Your task to perform on an android device: turn off location history Image 0: 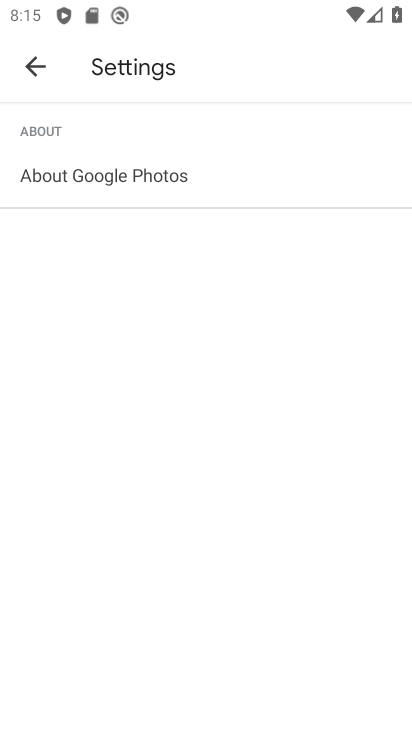
Step 0: press home button
Your task to perform on an android device: turn off location history Image 1: 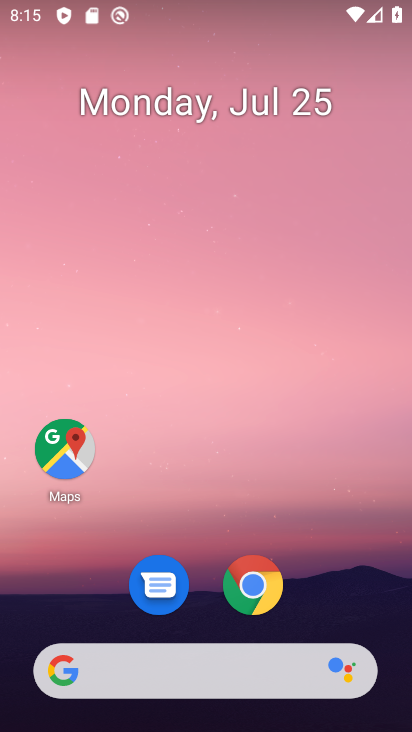
Step 1: click (70, 447)
Your task to perform on an android device: turn off location history Image 2: 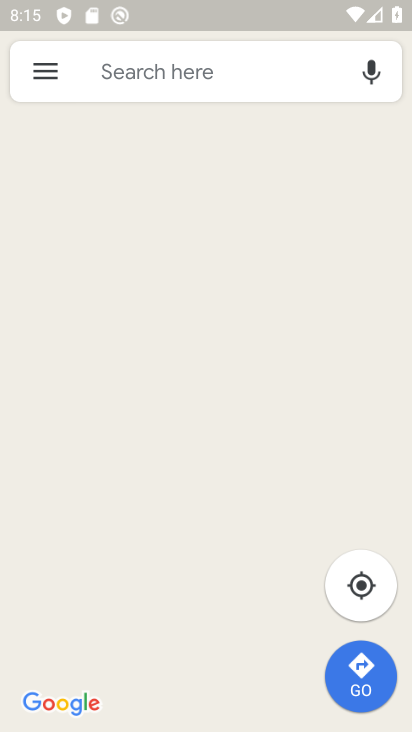
Step 2: click (47, 74)
Your task to perform on an android device: turn off location history Image 3: 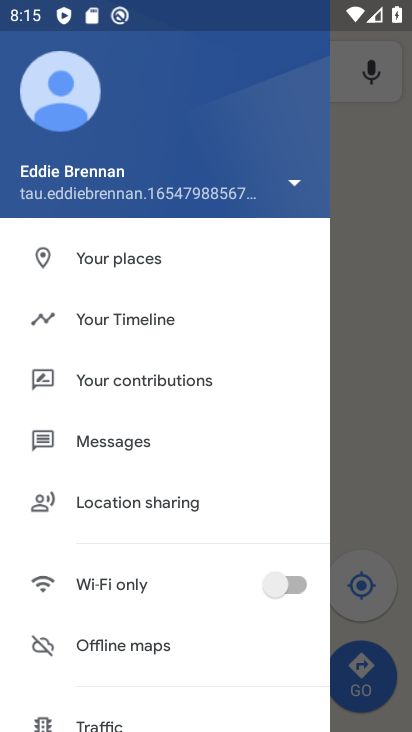
Step 3: click (144, 310)
Your task to perform on an android device: turn off location history Image 4: 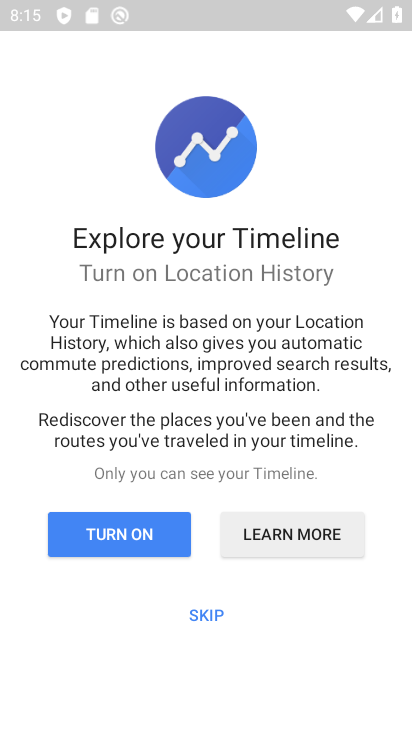
Step 4: click (193, 613)
Your task to perform on an android device: turn off location history Image 5: 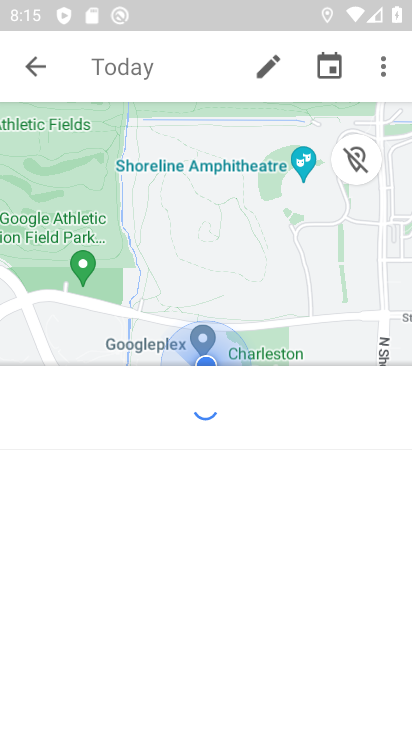
Step 5: click (384, 64)
Your task to perform on an android device: turn off location history Image 6: 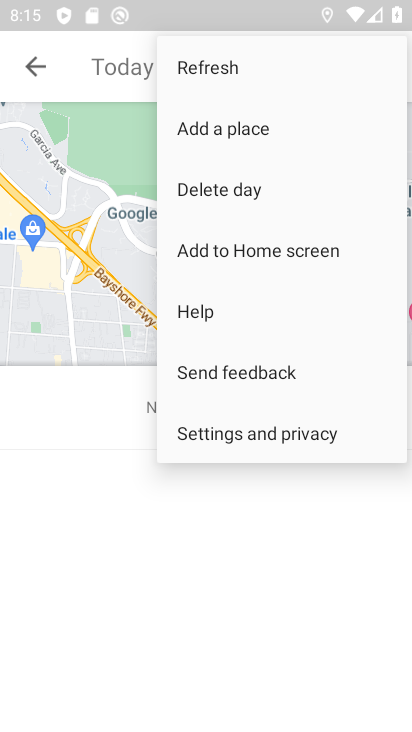
Step 6: click (380, 71)
Your task to perform on an android device: turn off location history Image 7: 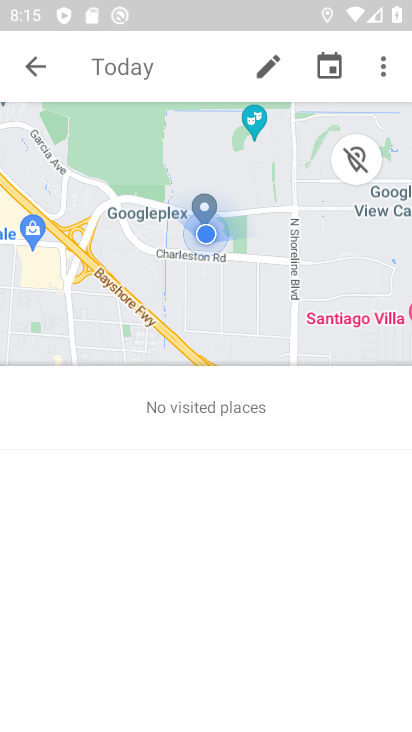
Step 7: click (383, 70)
Your task to perform on an android device: turn off location history Image 8: 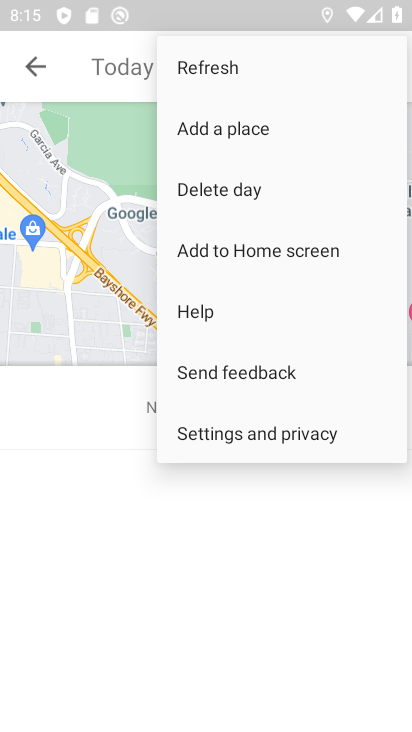
Step 8: click (283, 434)
Your task to perform on an android device: turn off location history Image 9: 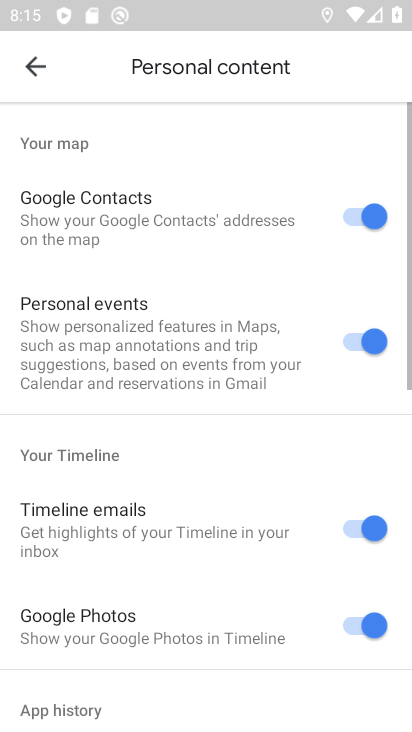
Step 9: drag from (212, 599) to (329, 67)
Your task to perform on an android device: turn off location history Image 10: 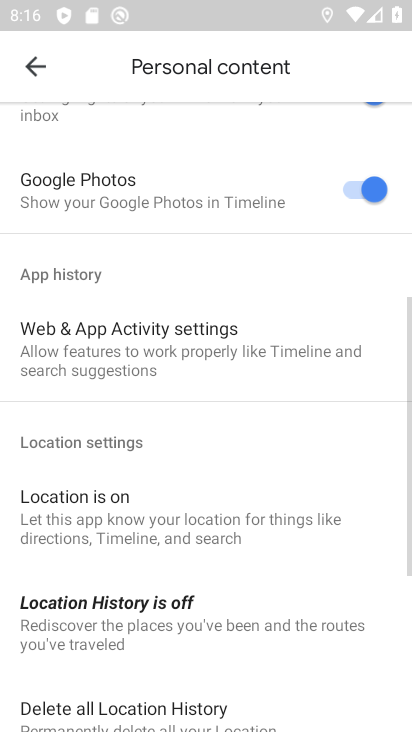
Step 10: drag from (233, 573) to (316, 281)
Your task to perform on an android device: turn off location history Image 11: 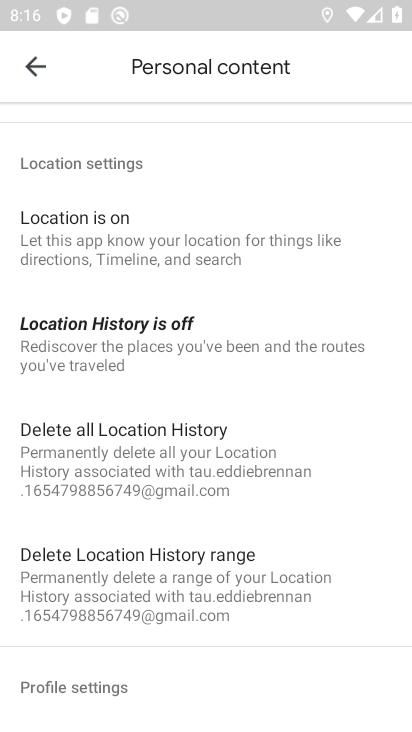
Step 11: click (172, 342)
Your task to perform on an android device: turn off location history Image 12: 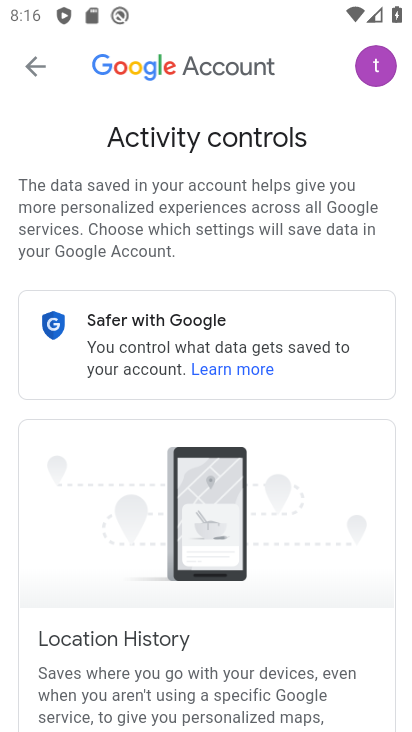
Step 12: task complete